Your task to perform on an android device: Do I have any events today? Image 0: 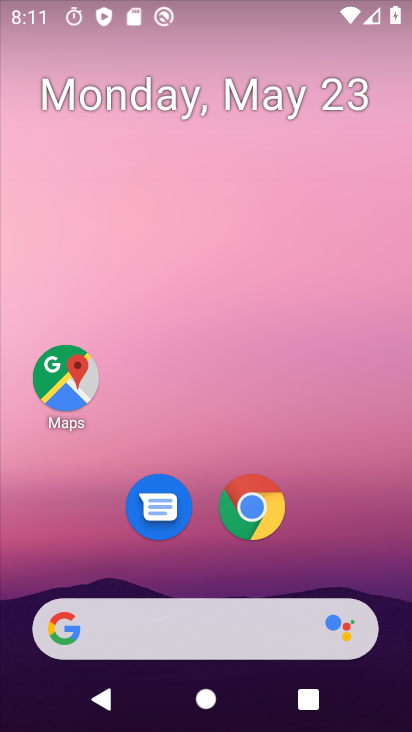
Step 0: drag from (356, 547) to (326, 0)
Your task to perform on an android device: Do I have any events today? Image 1: 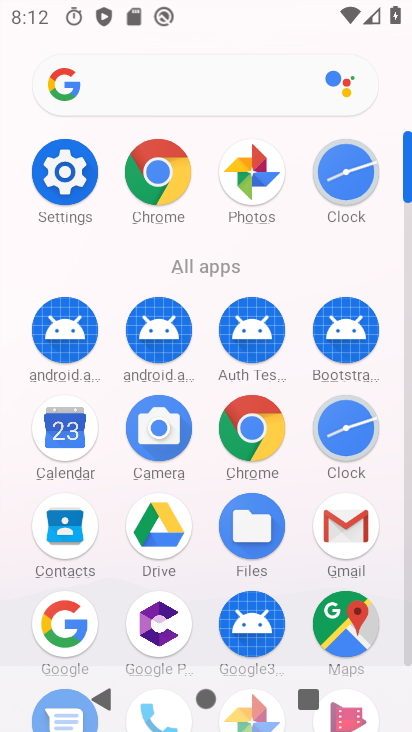
Step 1: click (54, 453)
Your task to perform on an android device: Do I have any events today? Image 2: 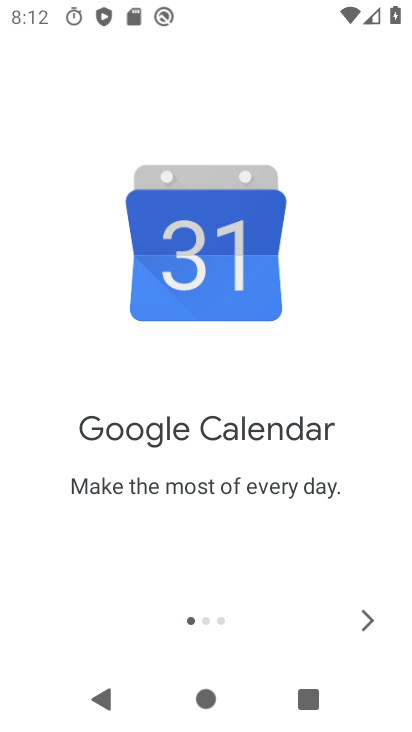
Step 2: click (367, 624)
Your task to perform on an android device: Do I have any events today? Image 3: 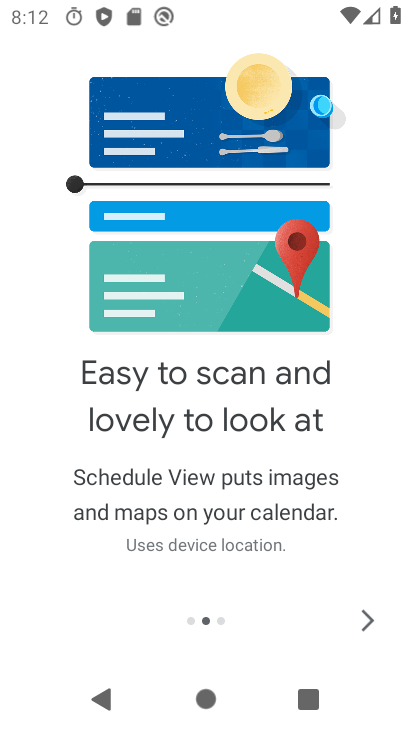
Step 3: click (367, 624)
Your task to perform on an android device: Do I have any events today? Image 4: 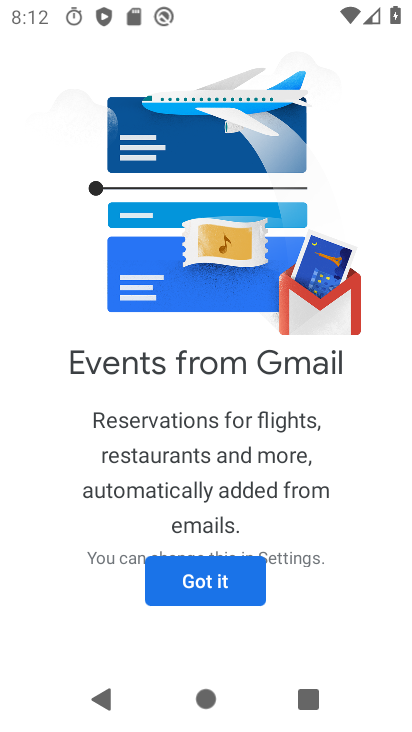
Step 4: click (195, 574)
Your task to perform on an android device: Do I have any events today? Image 5: 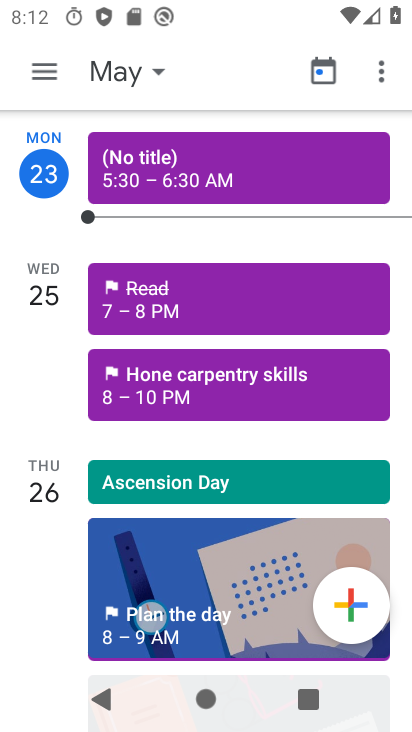
Step 5: click (155, 70)
Your task to perform on an android device: Do I have any events today? Image 6: 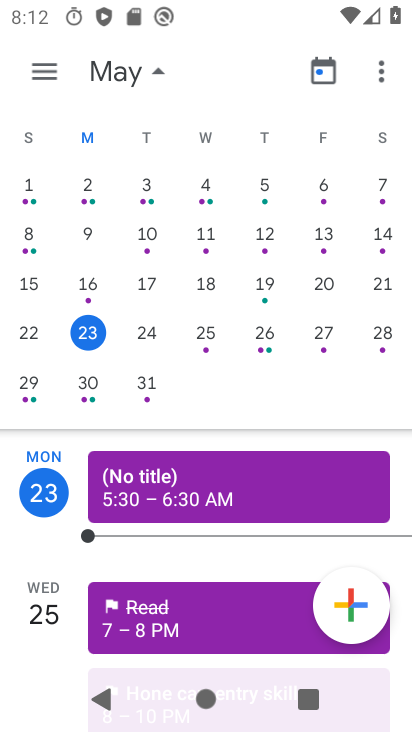
Step 6: task complete